Your task to perform on an android device: What's on the menu at IHOP? Image 0: 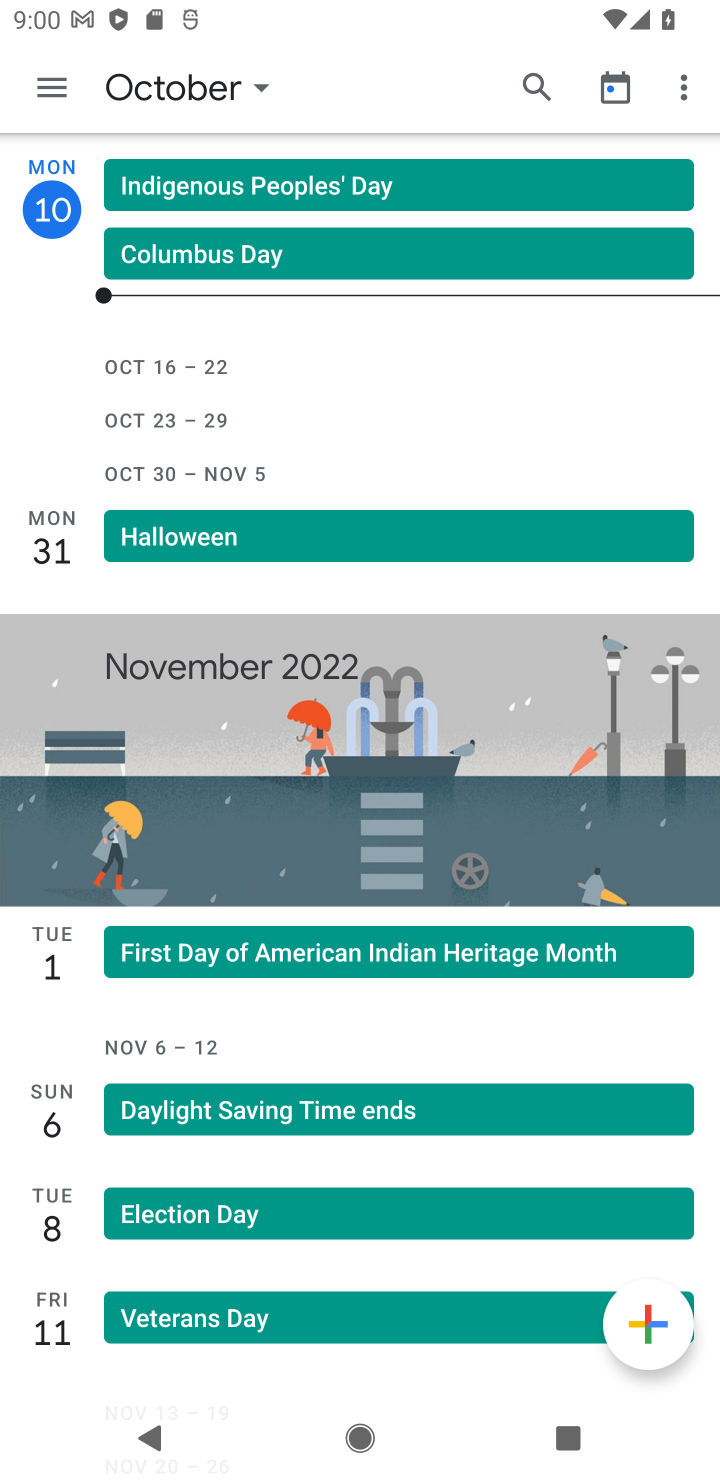
Step 0: press home button
Your task to perform on an android device: What's on the menu at IHOP? Image 1: 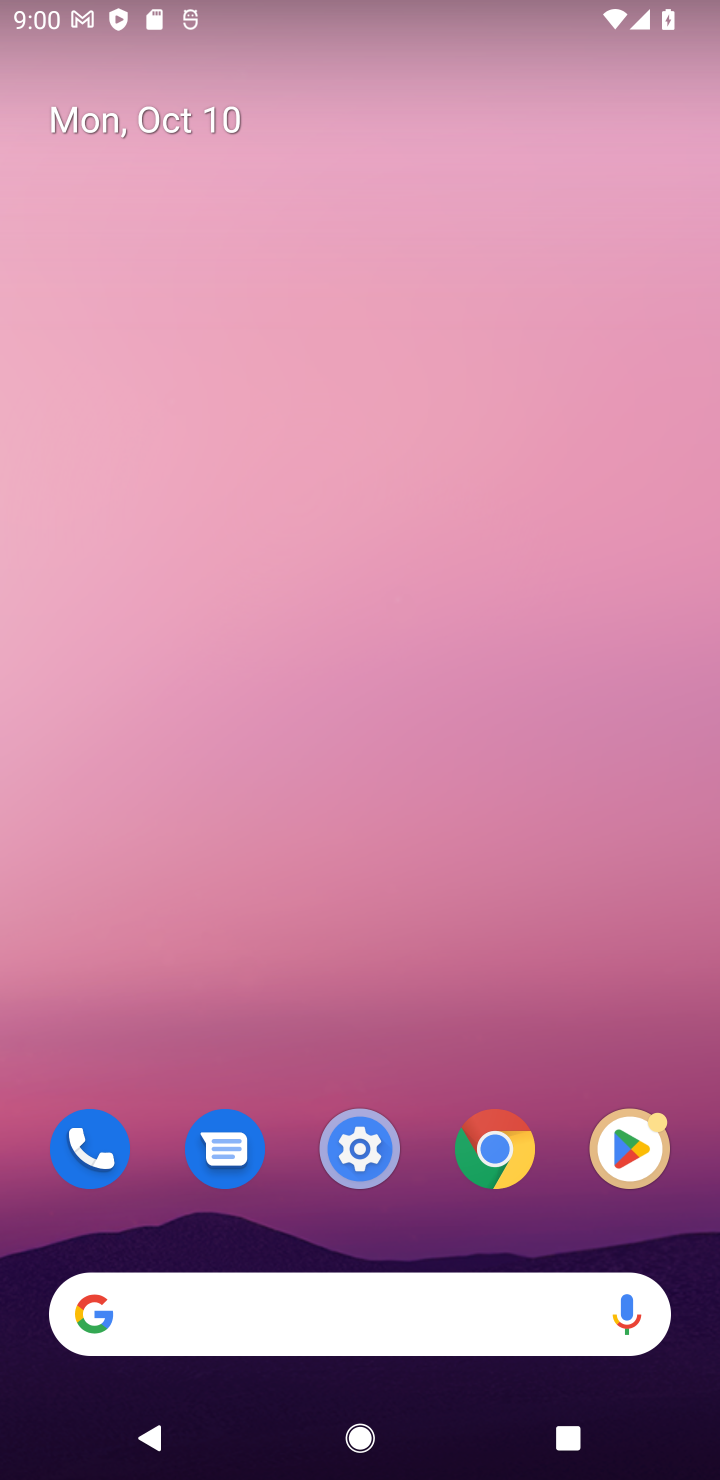
Step 1: click (285, 1295)
Your task to perform on an android device: What's on the menu at IHOP? Image 2: 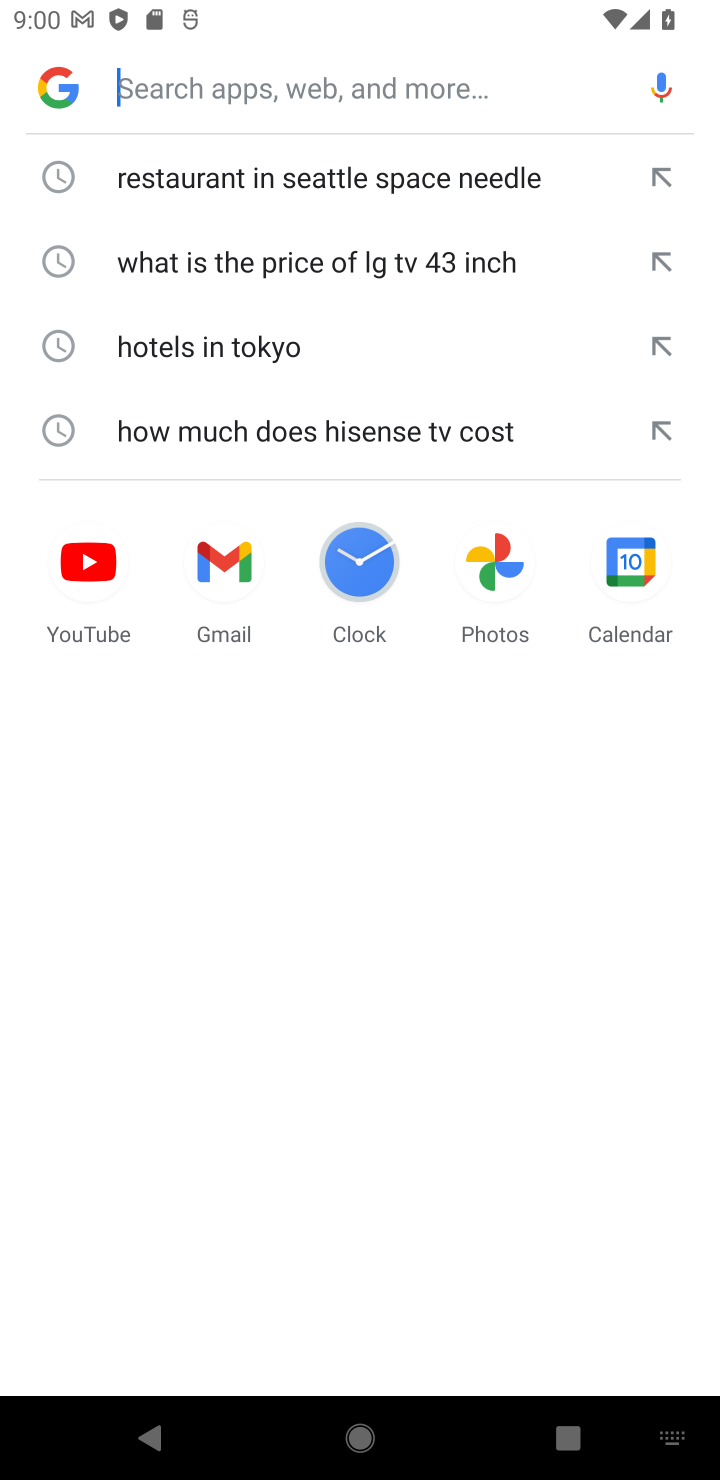
Step 2: type "What's on the menu at IHOP?"
Your task to perform on an android device: What's on the menu at IHOP? Image 3: 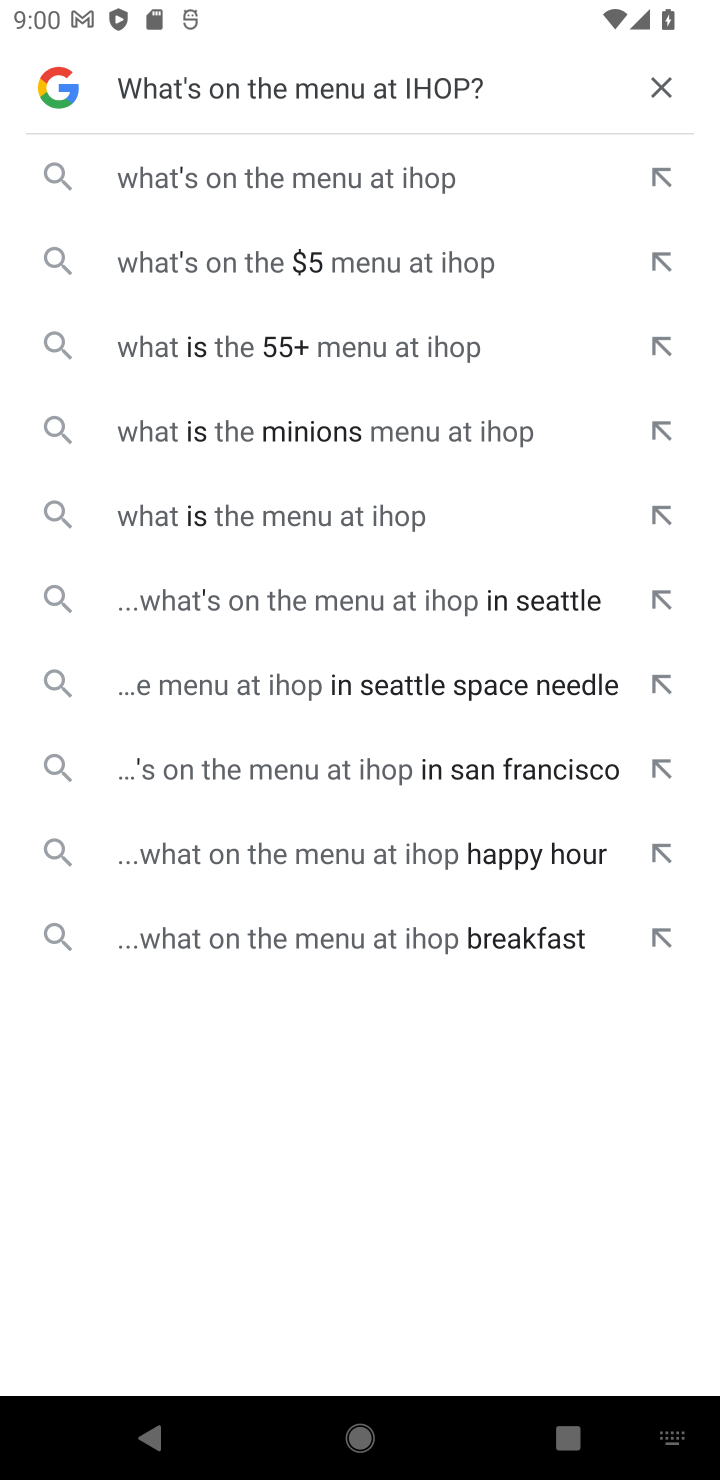
Step 3: click (420, 204)
Your task to perform on an android device: What's on the menu at IHOP? Image 4: 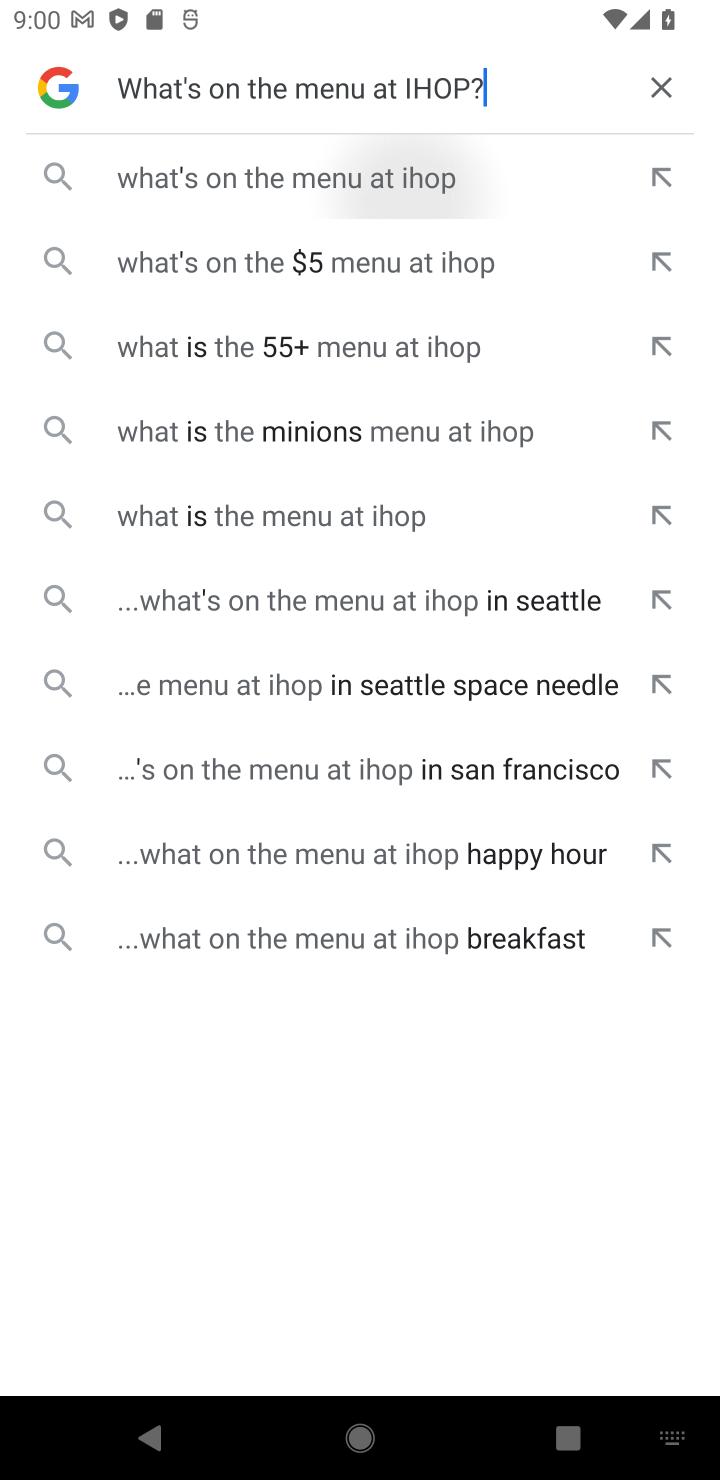
Step 4: task complete